Your task to perform on an android device: change timer sound Image 0: 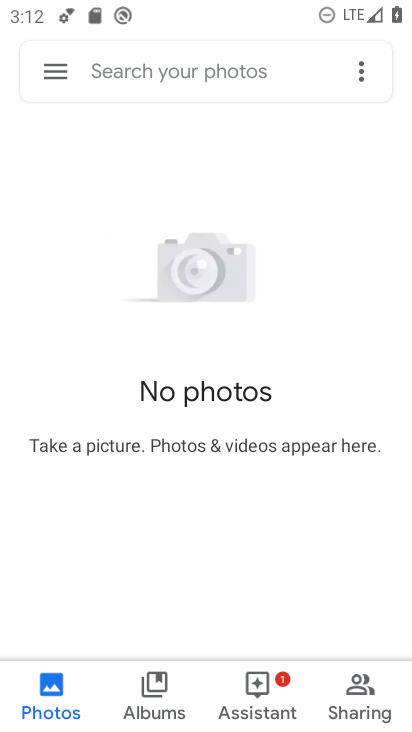
Step 0: press home button
Your task to perform on an android device: change timer sound Image 1: 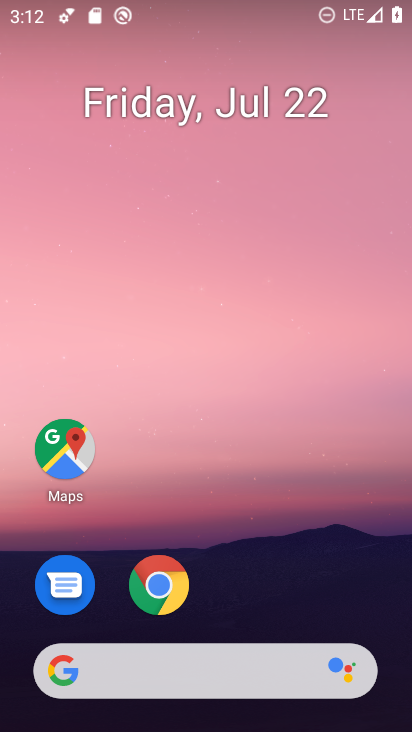
Step 1: drag from (312, 592) to (269, 23)
Your task to perform on an android device: change timer sound Image 2: 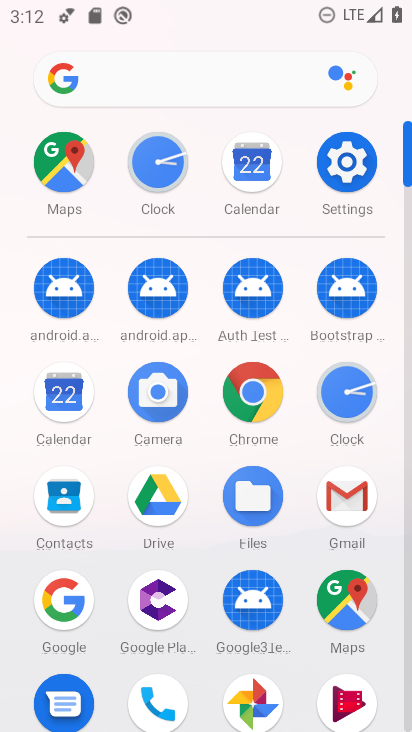
Step 2: click (163, 153)
Your task to perform on an android device: change timer sound Image 3: 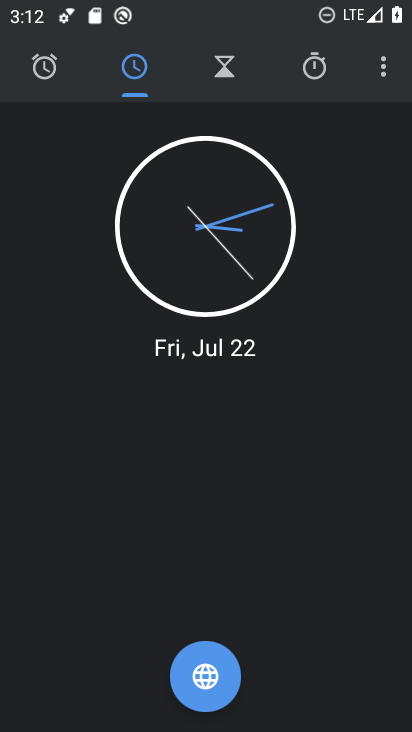
Step 3: click (381, 75)
Your task to perform on an android device: change timer sound Image 4: 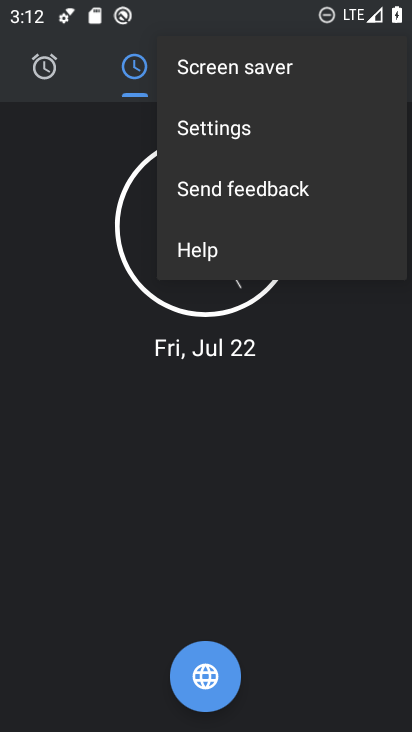
Step 4: click (240, 133)
Your task to perform on an android device: change timer sound Image 5: 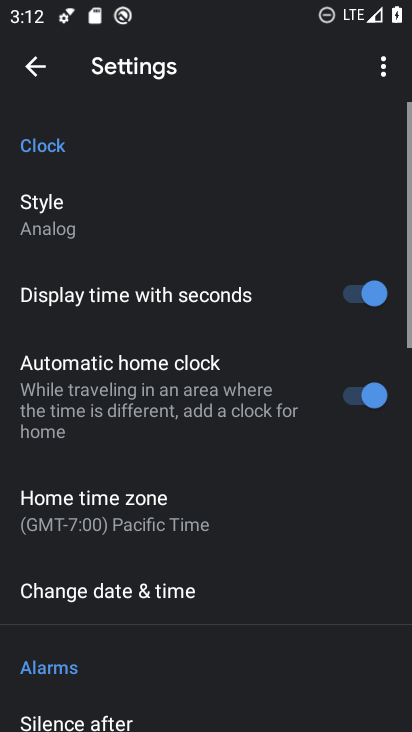
Step 5: drag from (282, 510) to (278, 83)
Your task to perform on an android device: change timer sound Image 6: 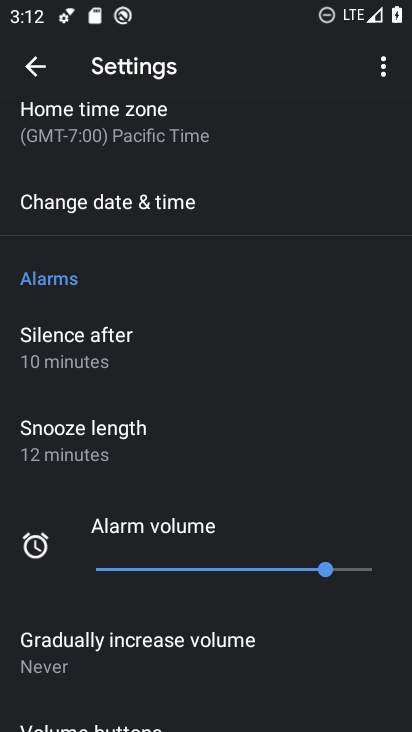
Step 6: drag from (251, 475) to (284, 44)
Your task to perform on an android device: change timer sound Image 7: 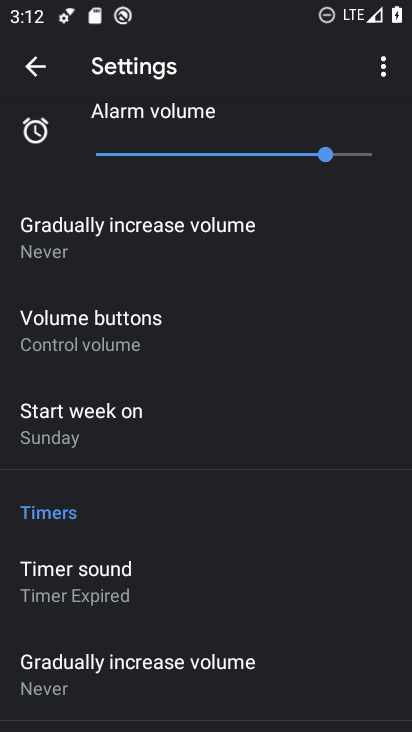
Step 7: click (100, 569)
Your task to perform on an android device: change timer sound Image 8: 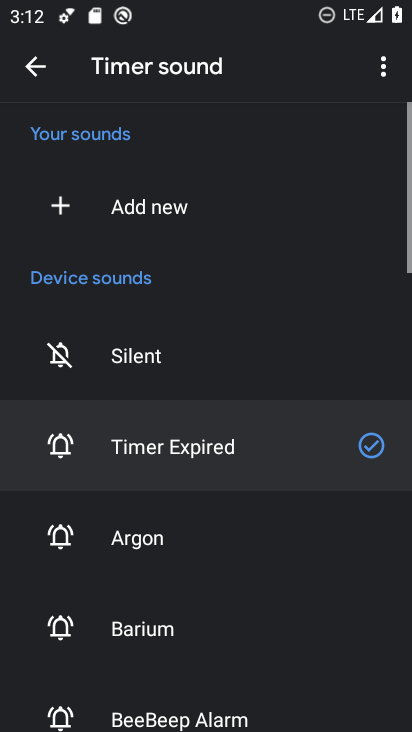
Step 8: click (135, 533)
Your task to perform on an android device: change timer sound Image 9: 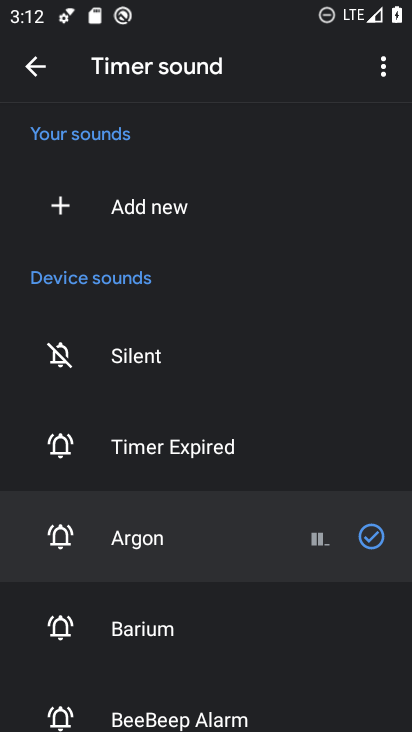
Step 9: task complete